Your task to perform on an android device: open sync settings in chrome Image 0: 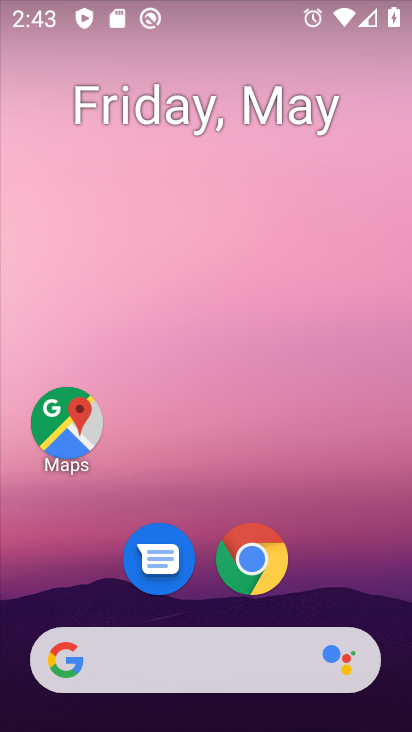
Step 0: click (283, 557)
Your task to perform on an android device: open sync settings in chrome Image 1: 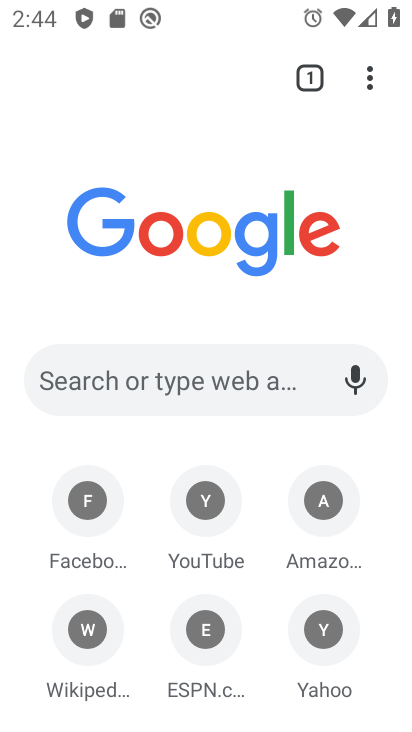
Step 1: click (374, 60)
Your task to perform on an android device: open sync settings in chrome Image 2: 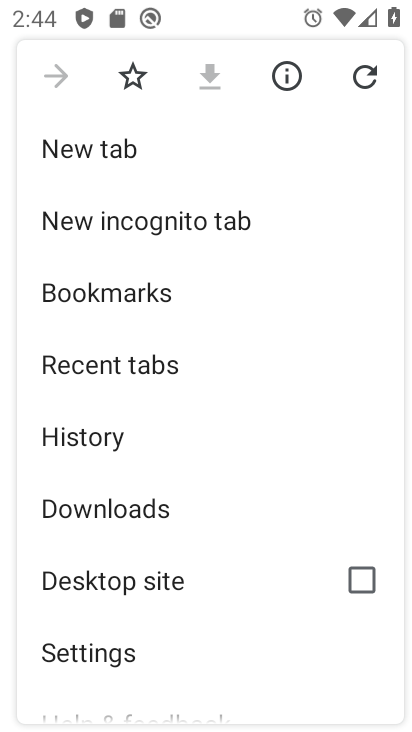
Step 2: click (188, 638)
Your task to perform on an android device: open sync settings in chrome Image 3: 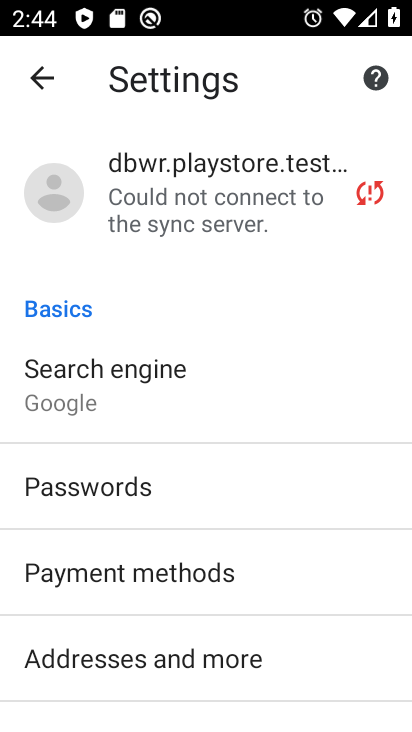
Step 3: click (155, 191)
Your task to perform on an android device: open sync settings in chrome Image 4: 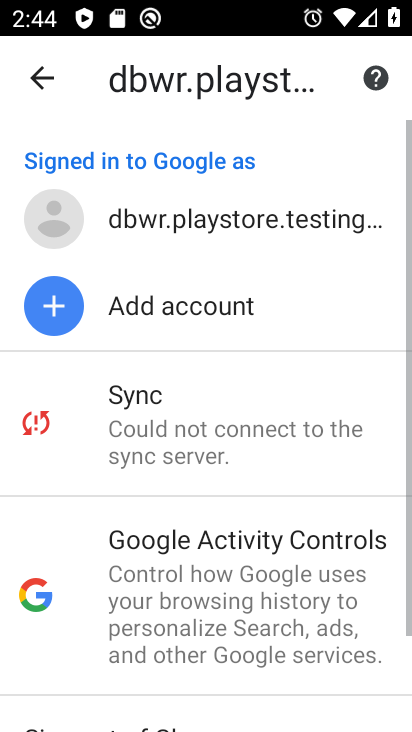
Step 4: click (185, 393)
Your task to perform on an android device: open sync settings in chrome Image 5: 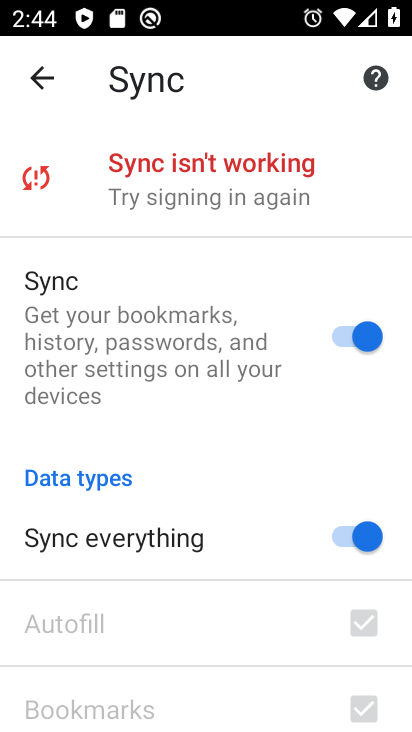
Step 5: task complete